Your task to perform on an android device: open a bookmark in the chrome app Image 0: 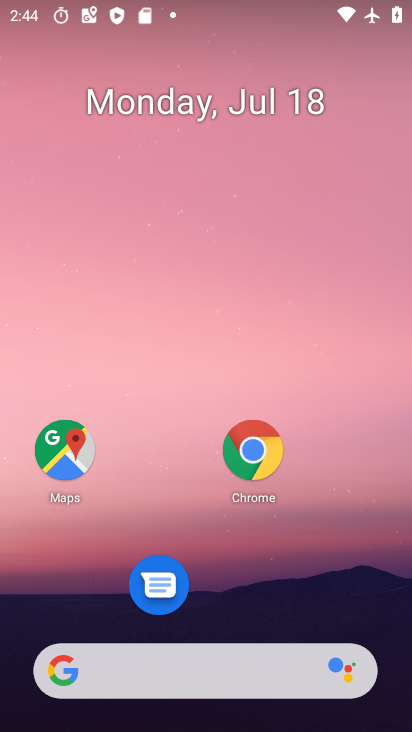
Step 0: press home button
Your task to perform on an android device: open a bookmark in the chrome app Image 1: 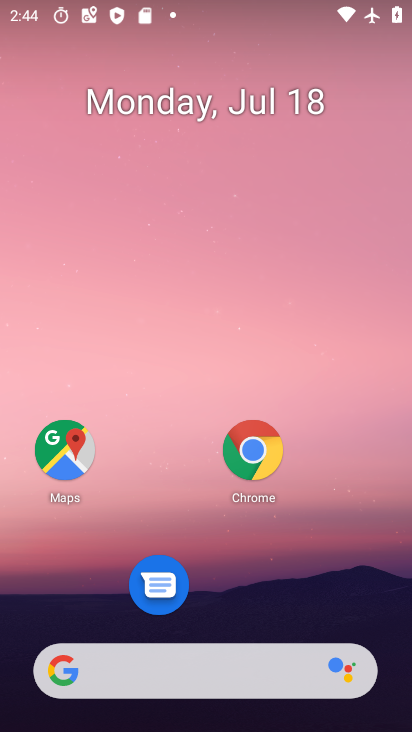
Step 1: click (257, 456)
Your task to perform on an android device: open a bookmark in the chrome app Image 2: 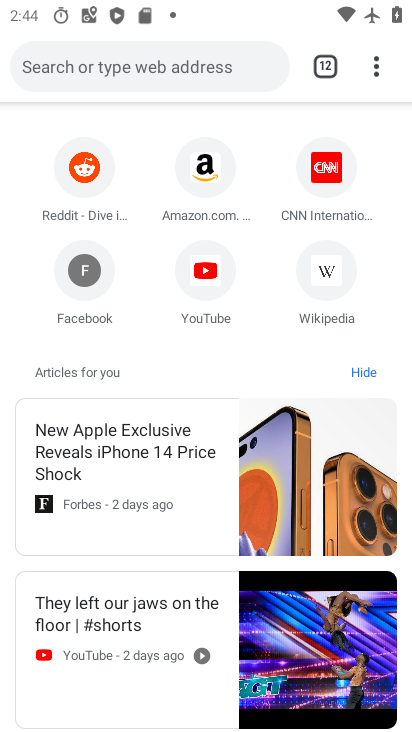
Step 2: task complete